Your task to perform on an android device: Open Amazon Image 0: 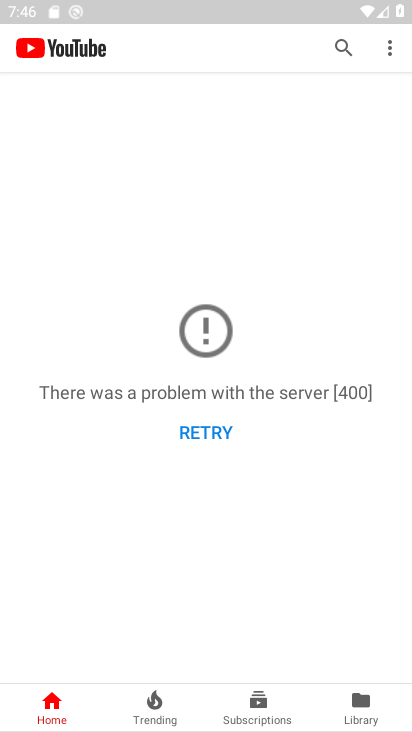
Step 0: press home button
Your task to perform on an android device: Open Amazon Image 1: 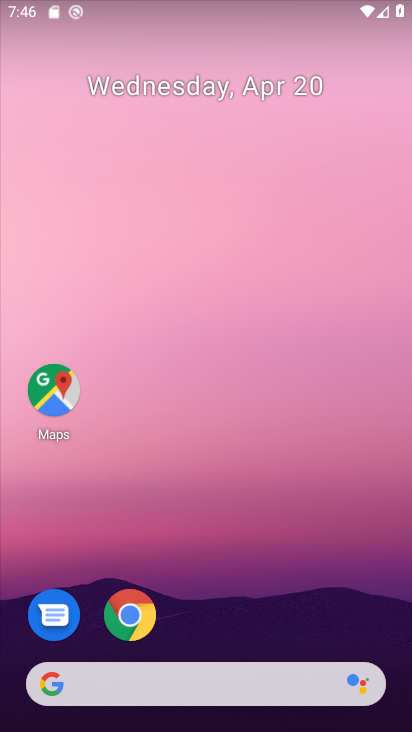
Step 1: click (126, 610)
Your task to perform on an android device: Open Amazon Image 2: 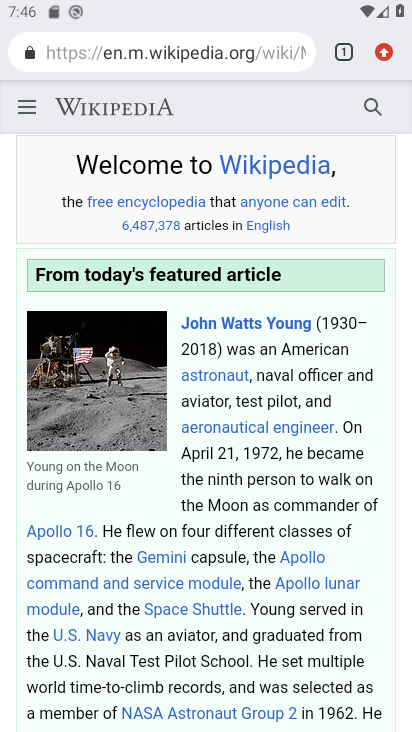
Step 2: click (237, 52)
Your task to perform on an android device: Open Amazon Image 3: 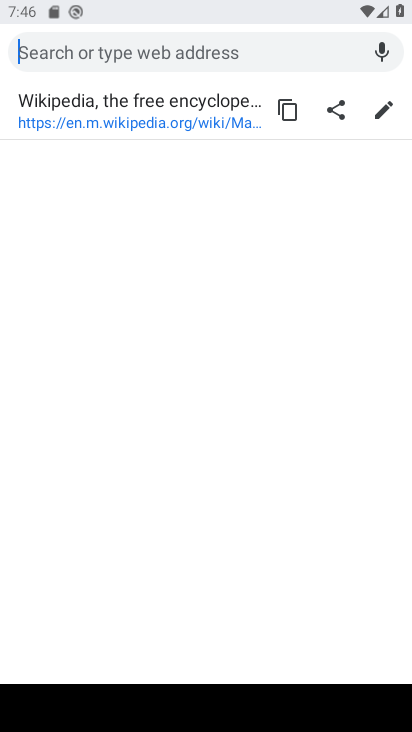
Step 3: type "amazon.com"
Your task to perform on an android device: Open Amazon Image 4: 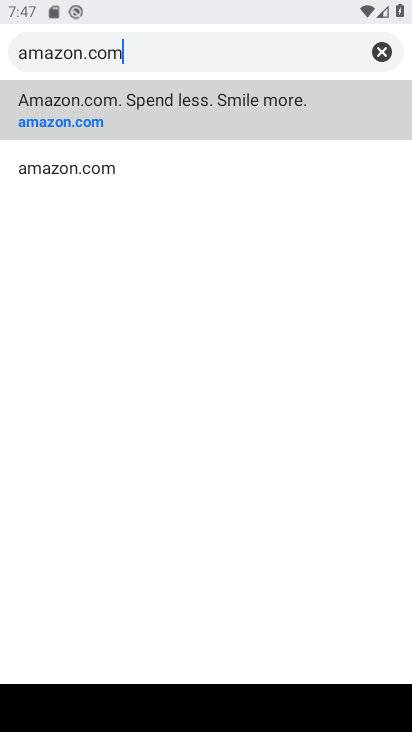
Step 4: click (89, 110)
Your task to perform on an android device: Open Amazon Image 5: 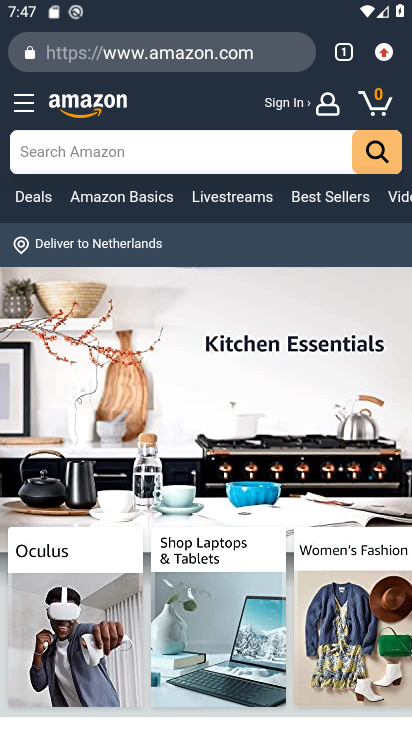
Step 5: task complete